Your task to perform on an android device: Open settings Image 0: 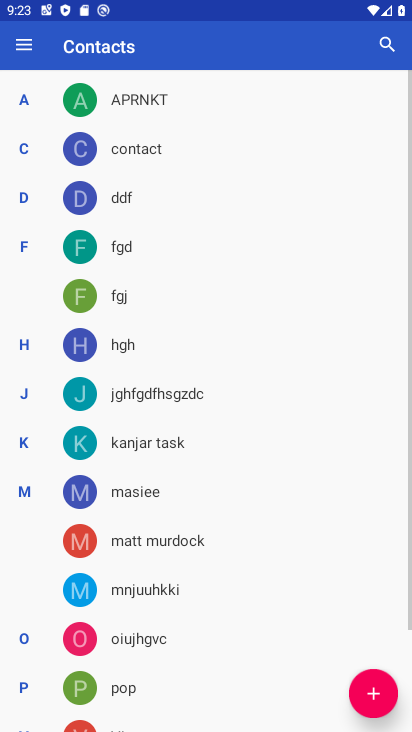
Step 0: press home button
Your task to perform on an android device: Open settings Image 1: 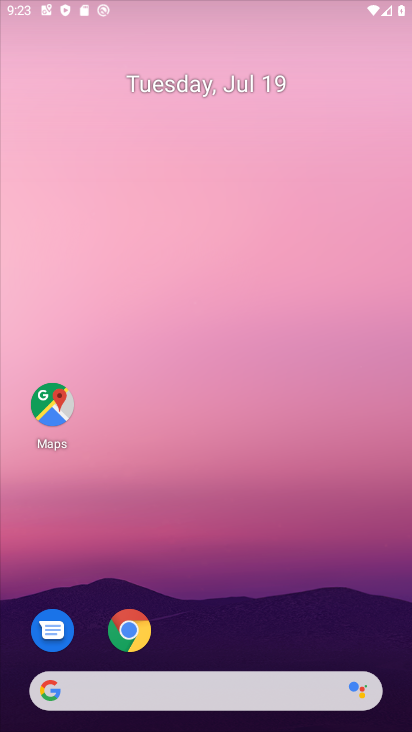
Step 1: drag from (223, 619) to (250, 8)
Your task to perform on an android device: Open settings Image 2: 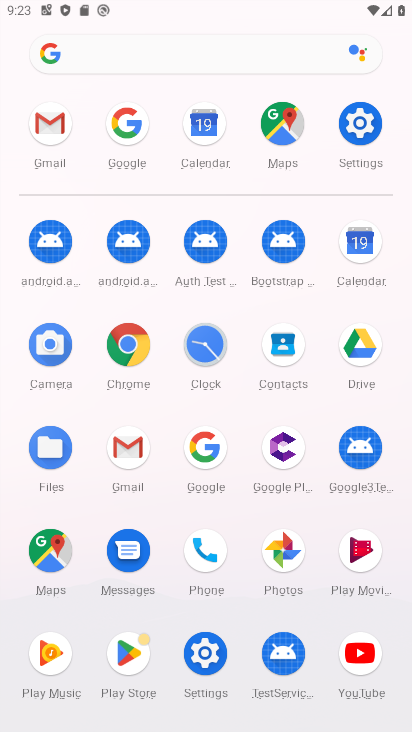
Step 2: click (363, 125)
Your task to perform on an android device: Open settings Image 3: 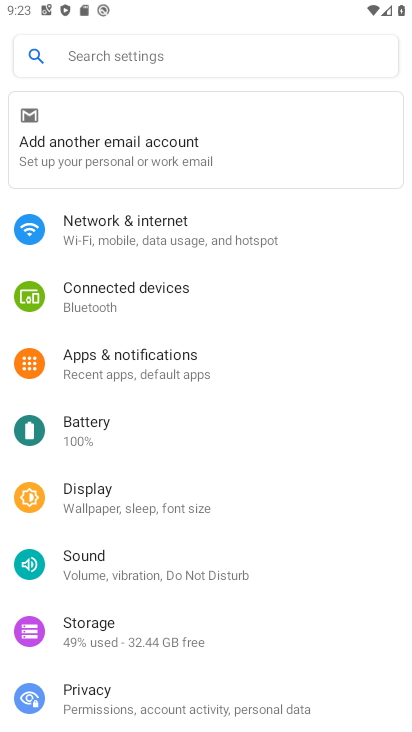
Step 3: task complete